Your task to perform on an android device: Open Android settings Image 0: 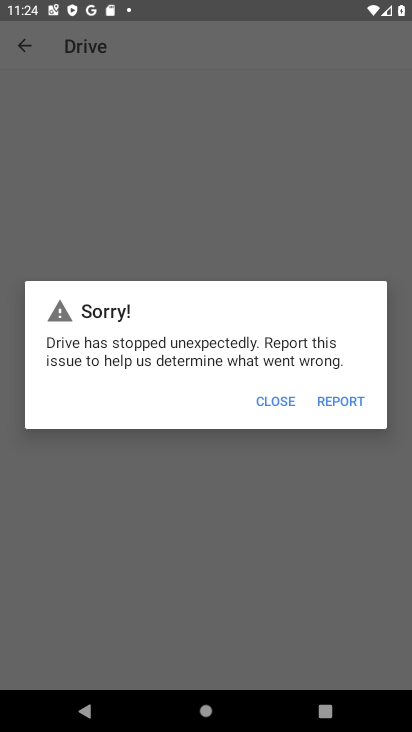
Step 0: press home button
Your task to perform on an android device: Open Android settings Image 1: 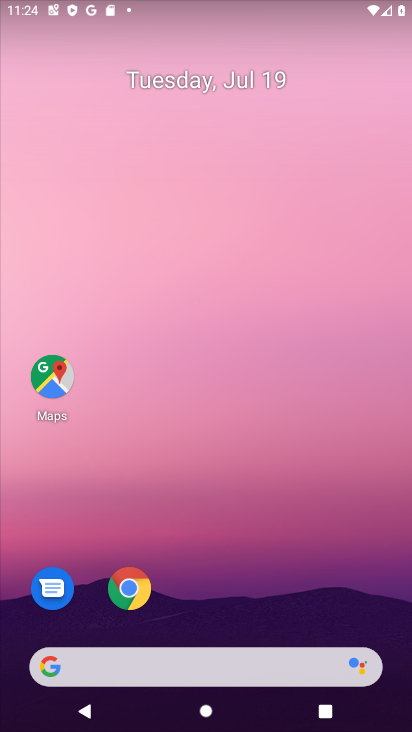
Step 1: drag from (262, 701) to (226, 401)
Your task to perform on an android device: Open Android settings Image 2: 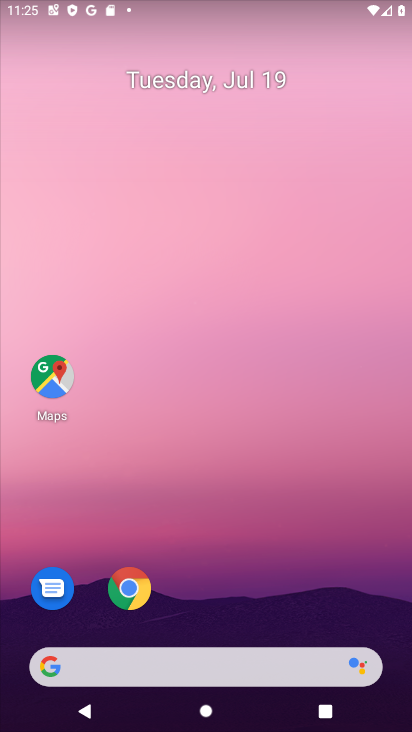
Step 2: drag from (237, 615) to (221, 188)
Your task to perform on an android device: Open Android settings Image 3: 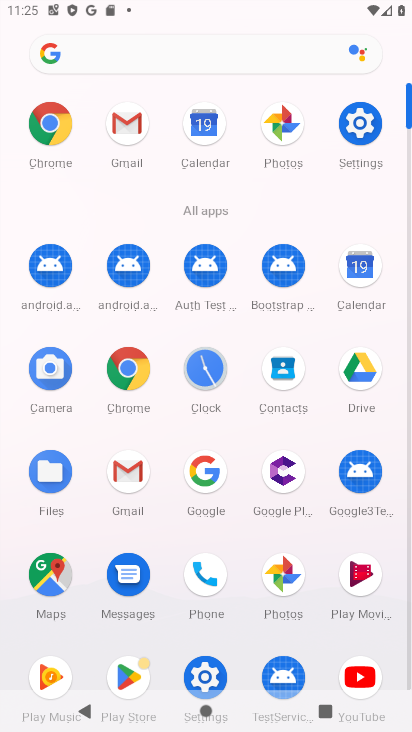
Step 3: click (363, 120)
Your task to perform on an android device: Open Android settings Image 4: 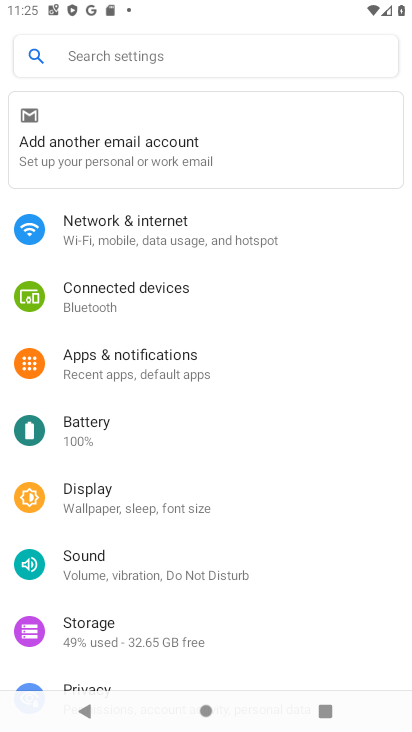
Step 4: task complete